Your task to perform on an android device: open the mobile data screen to see how much data has been used Image 0: 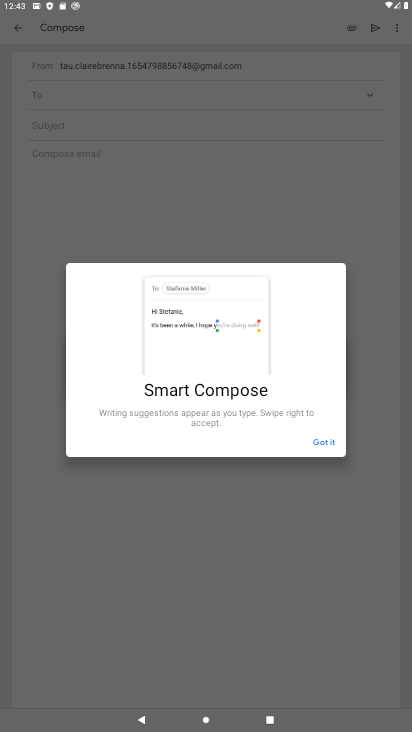
Step 0: drag from (384, 2) to (343, 453)
Your task to perform on an android device: open the mobile data screen to see how much data has been used Image 1: 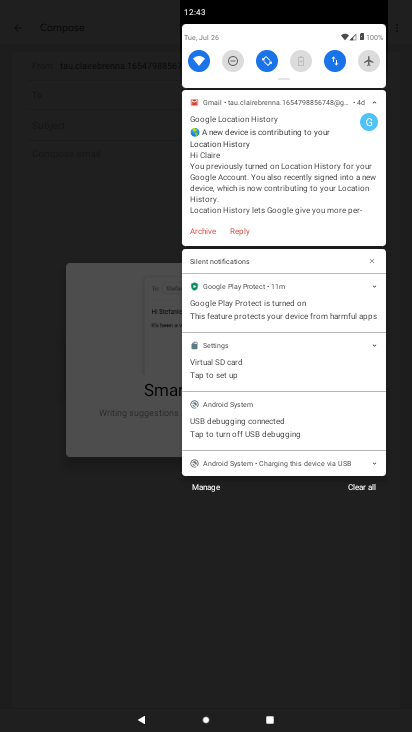
Step 1: click (334, 59)
Your task to perform on an android device: open the mobile data screen to see how much data has been used Image 2: 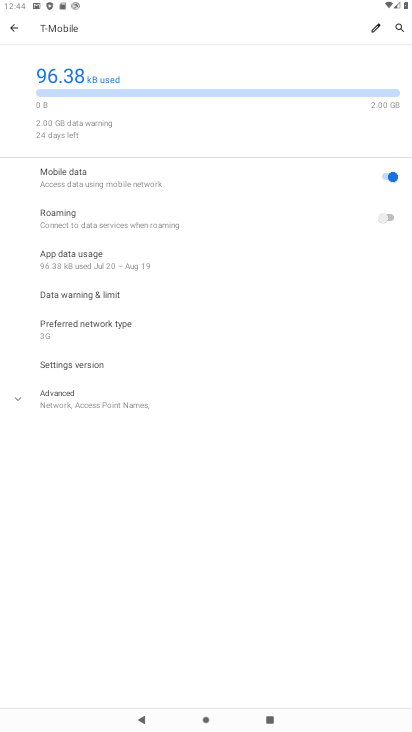
Step 2: task complete